Your task to perform on an android device: set an alarm Image 0: 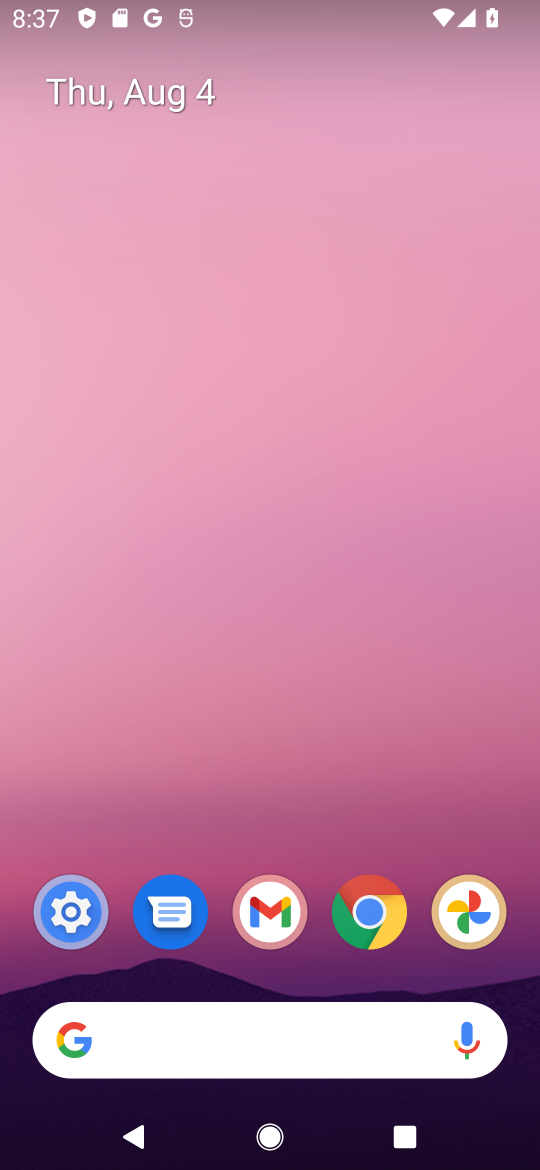
Step 0: drag from (321, 856) to (308, 134)
Your task to perform on an android device: set an alarm Image 1: 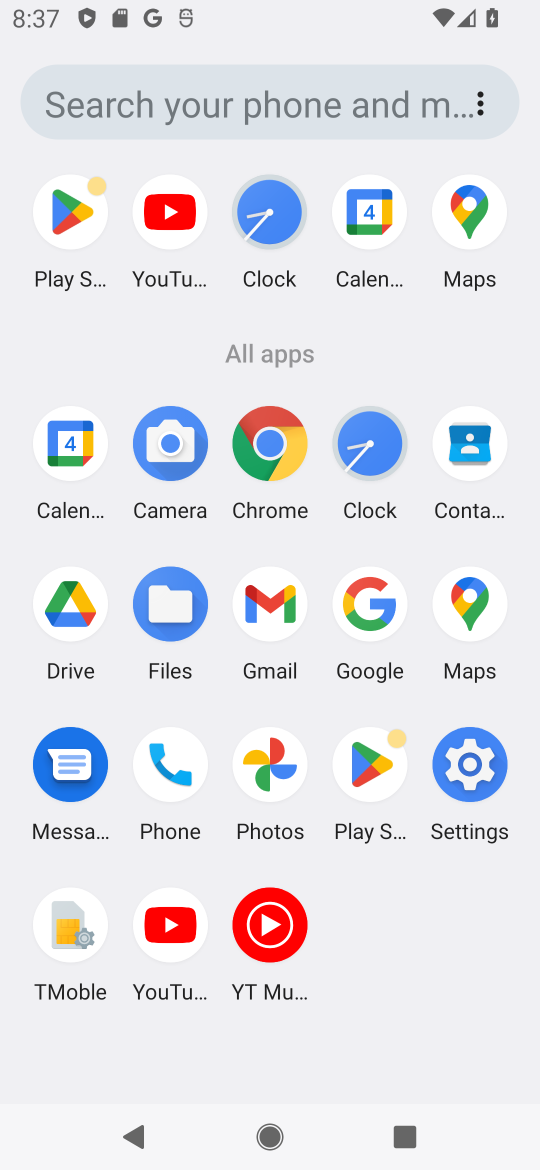
Step 1: click (262, 205)
Your task to perform on an android device: set an alarm Image 2: 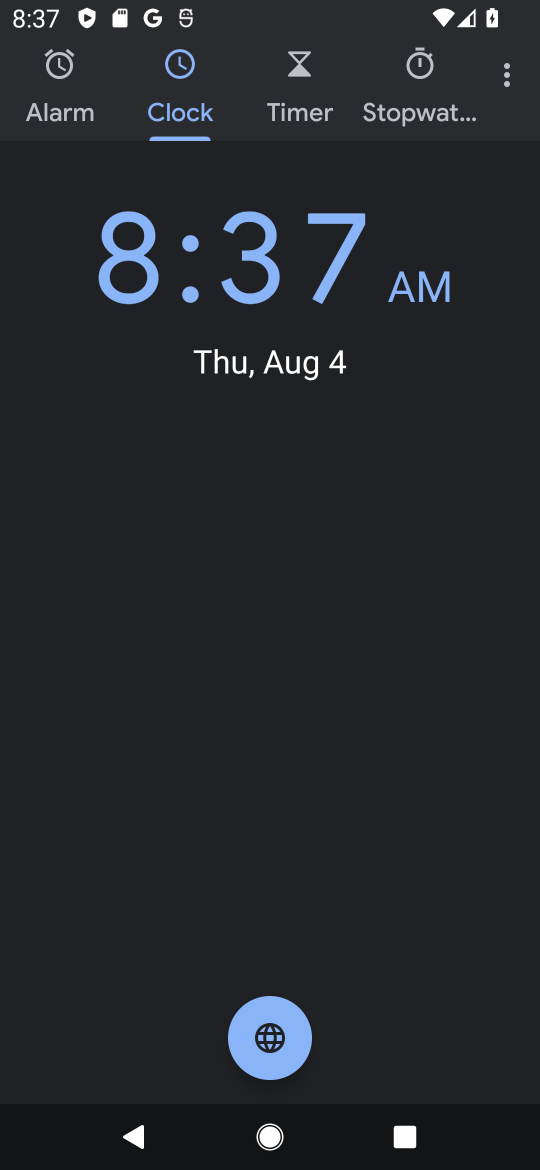
Step 2: click (51, 105)
Your task to perform on an android device: set an alarm Image 3: 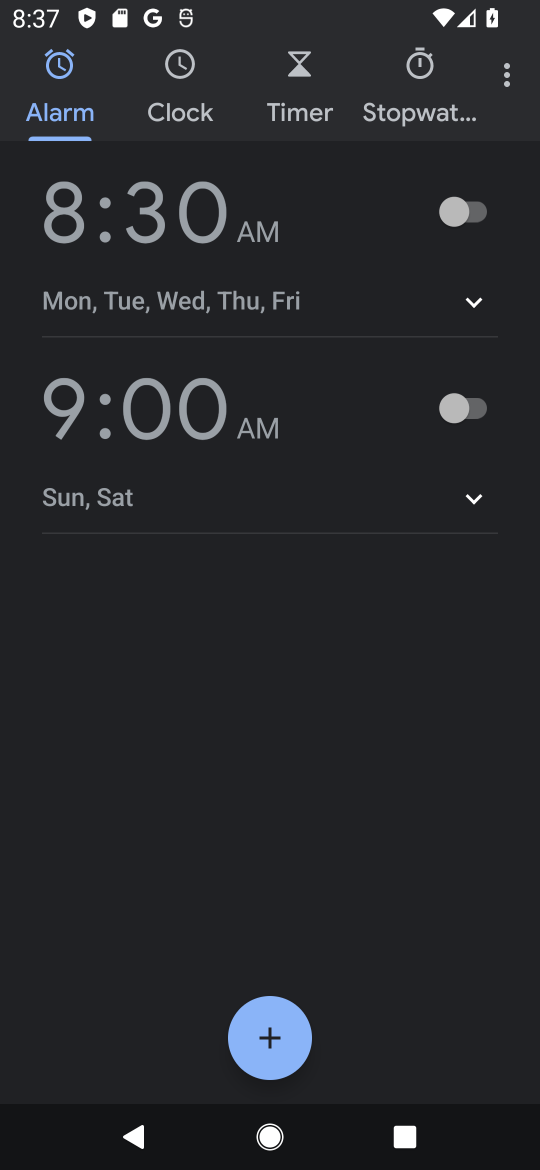
Step 3: click (284, 985)
Your task to perform on an android device: set an alarm Image 4: 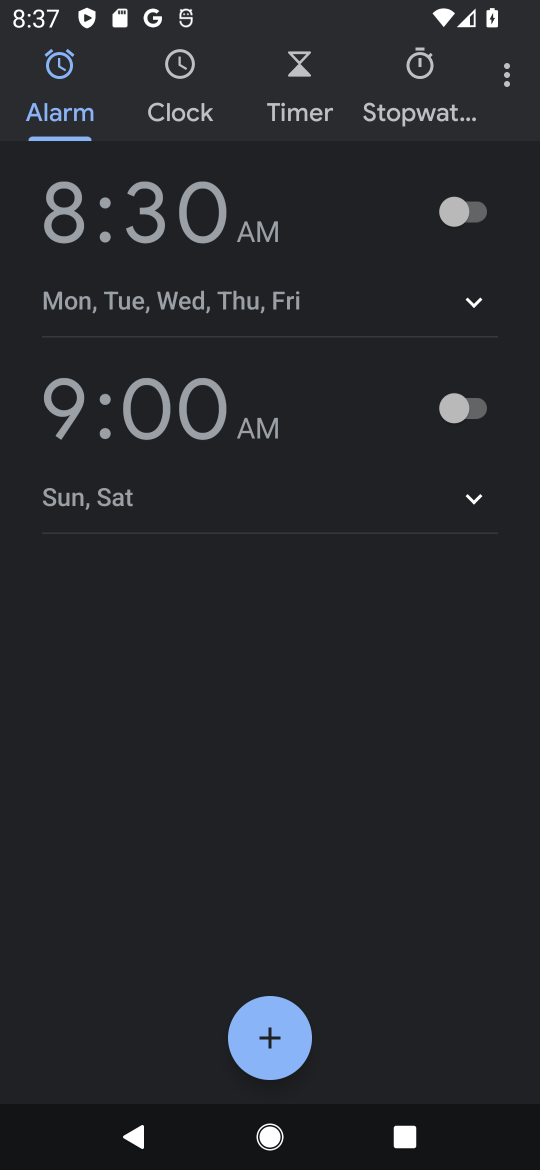
Step 4: click (278, 1039)
Your task to perform on an android device: set an alarm Image 5: 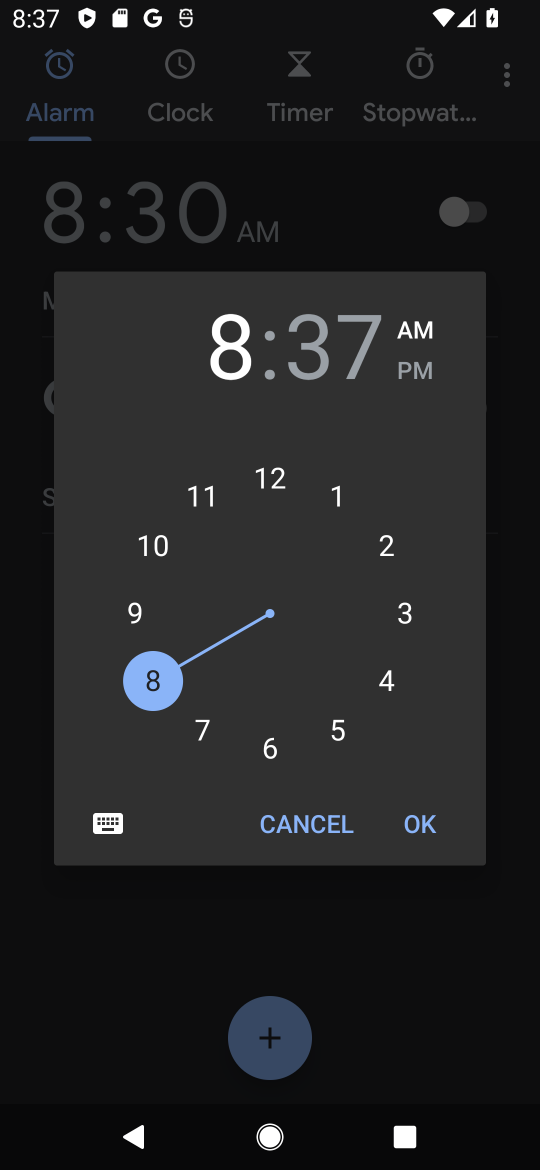
Step 5: click (406, 852)
Your task to perform on an android device: set an alarm Image 6: 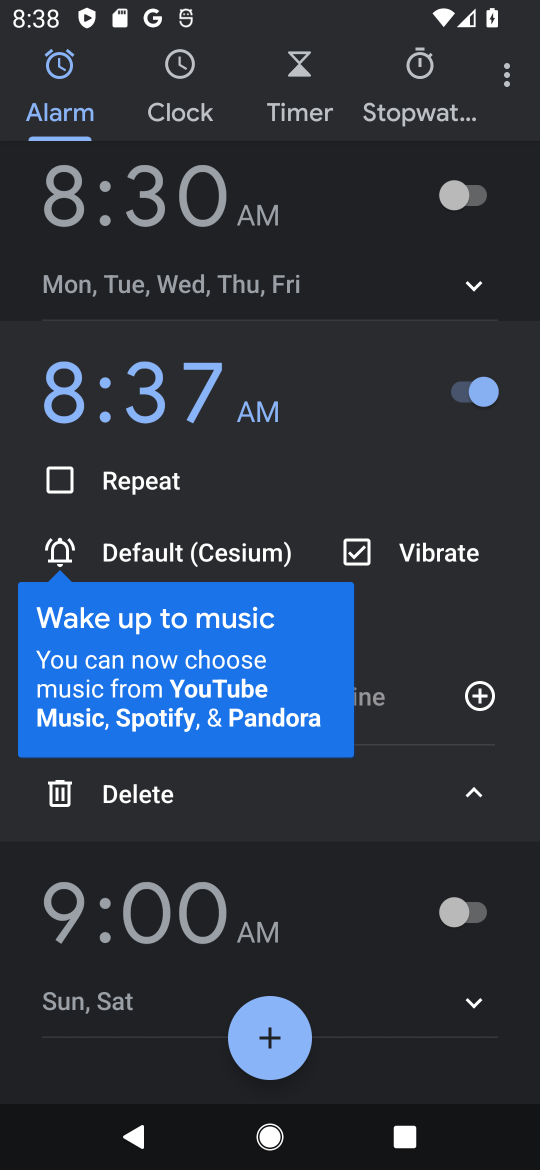
Step 6: task complete